Your task to perform on an android device: Clear the shopping cart on target.com. Search for dell alienware on target.com, select the first entry, add it to the cart, then select checkout. Image 0: 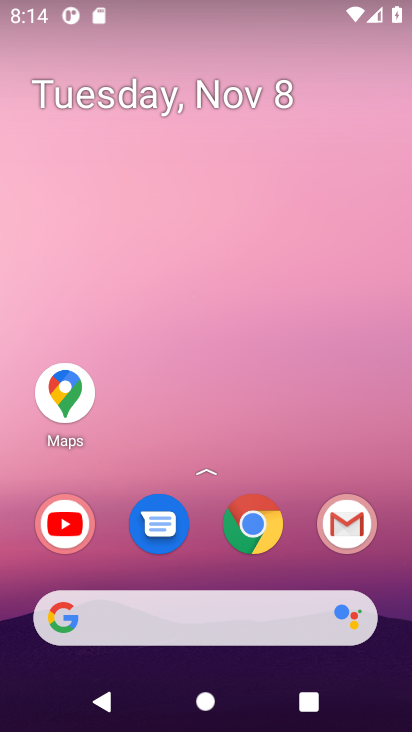
Step 0: click (245, 539)
Your task to perform on an android device: Clear the shopping cart on target.com. Search for dell alienware on target.com, select the first entry, add it to the cart, then select checkout. Image 1: 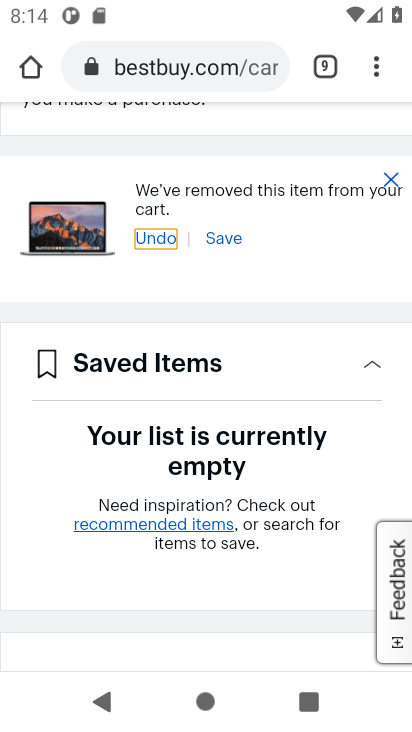
Step 1: click (230, 63)
Your task to perform on an android device: Clear the shopping cart on target.com. Search for dell alienware on target.com, select the first entry, add it to the cart, then select checkout. Image 2: 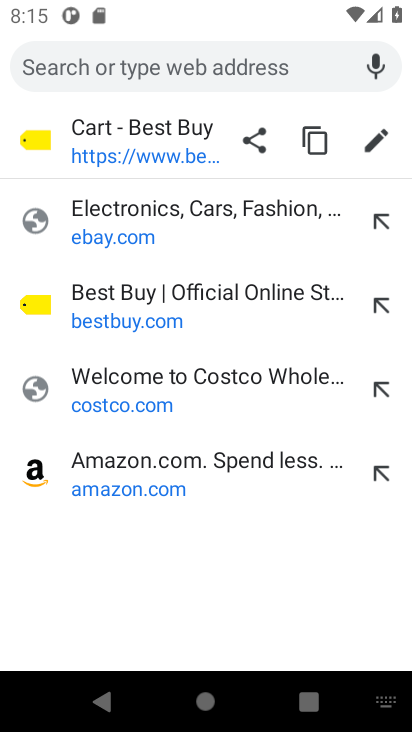
Step 2: type "target.com"
Your task to perform on an android device: Clear the shopping cart on target.com. Search for dell alienware on target.com, select the first entry, add it to the cart, then select checkout. Image 3: 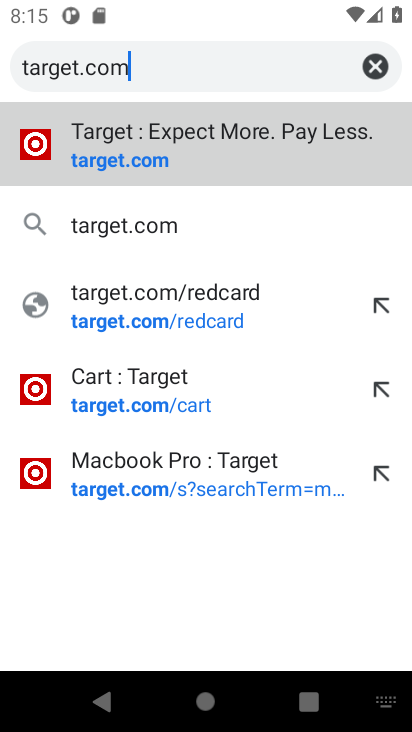
Step 3: click (137, 160)
Your task to perform on an android device: Clear the shopping cart on target.com. Search for dell alienware on target.com, select the first entry, add it to the cart, then select checkout. Image 4: 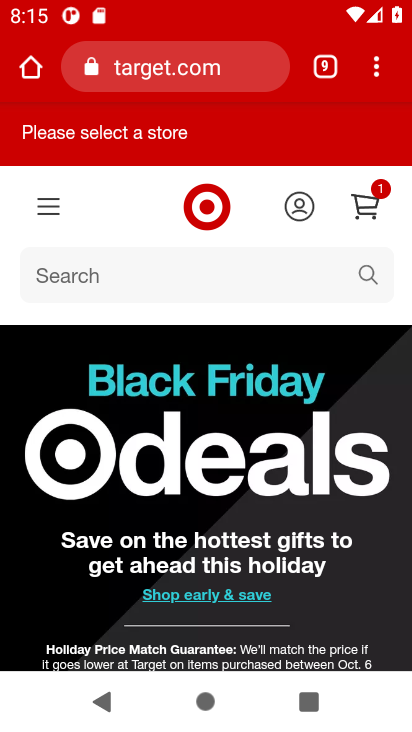
Step 4: click (365, 210)
Your task to perform on an android device: Clear the shopping cart on target.com. Search for dell alienware on target.com, select the first entry, add it to the cart, then select checkout. Image 5: 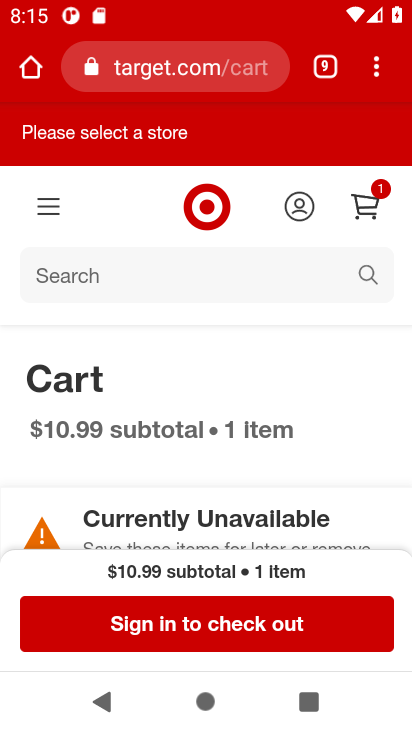
Step 5: drag from (183, 456) to (202, 164)
Your task to perform on an android device: Clear the shopping cart on target.com. Search for dell alienware on target.com, select the first entry, add it to the cart, then select checkout. Image 6: 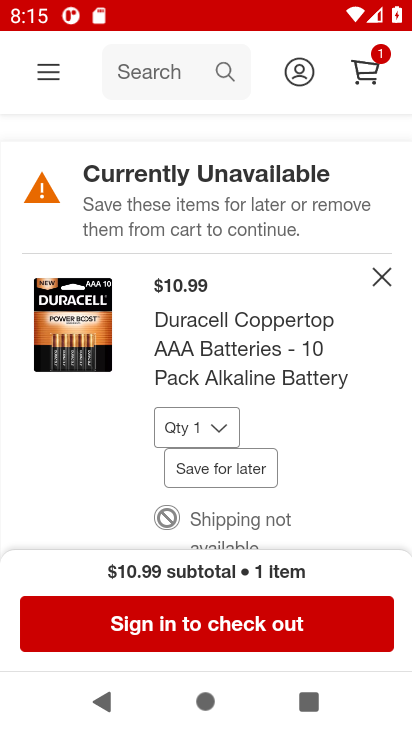
Step 6: drag from (186, 362) to (211, 198)
Your task to perform on an android device: Clear the shopping cart on target.com. Search for dell alienware on target.com, select the first entry, add it to the cart, then select checkout. Image 7: 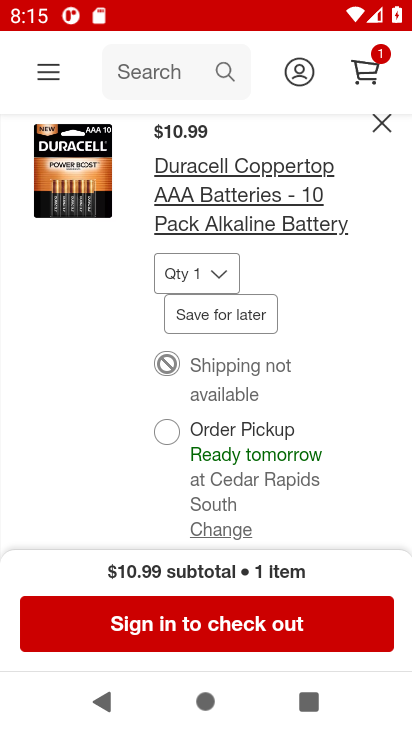
Step 7: drag from (197, 404) to (215, 211)
Your task to perform on an android device: Clear the shopping cart on target.com. Search for dell alienware on target.com, select the first entry, add it to the cart, then select checkout. Image 8: 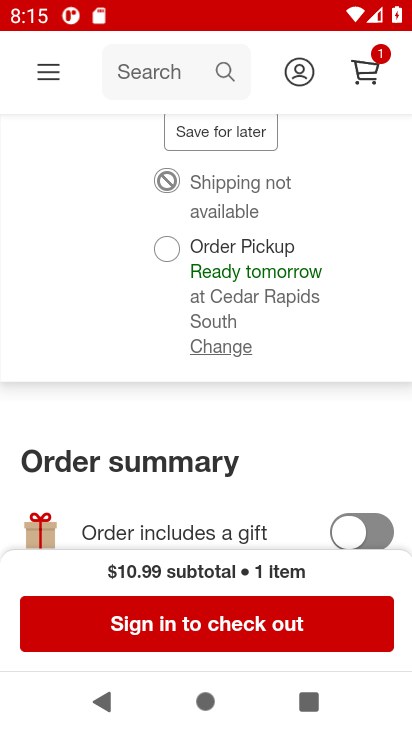
Step 8: drag from (245, 404) to (271, 182)
Your task to perform on an android device: Clear the shopping cart on target.com. Search for dell alienware on target.com, select the first entry, add it to the cart, then select checkout. Image 9: 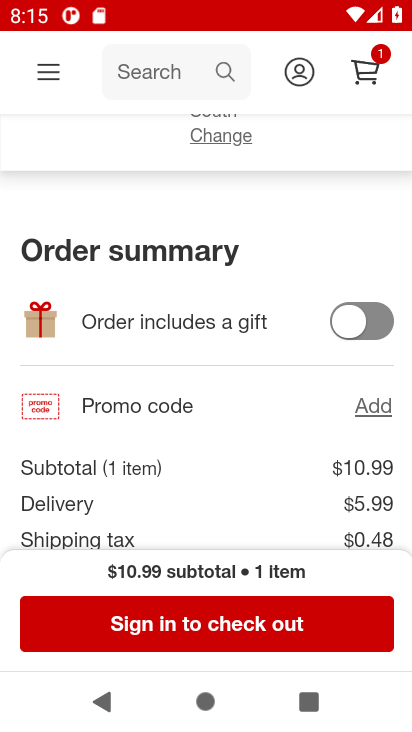
Step 9: drag from (221, 407) to (259, 134)
Your task to perform on an android device: Clear the shopping cart on target.com. Search for dell alienware on target.com, select the first entry, add it to the cart, then select checkout. Image 10: 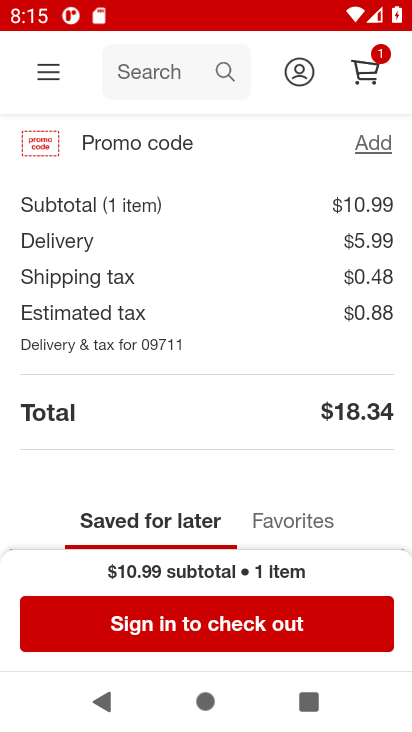
Step 10: drag from (205, 332) to (239, 127)
Your task to perform on an android device: Clear the shopping cart on target.com. Search for dell alienware on target.com, select the first entry, add it to the cart, then select checkout. Image 11: 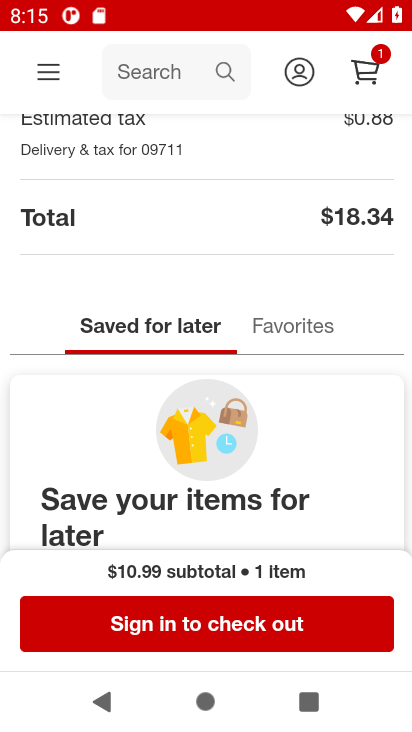
Step 11: drag from (240, 125) to (189, 659)
Your task to perform on an android device: Clear the shopping cart on target.com. Search for dell alienware on target.com, select the first entry, add it to the cart, then select checkout. Image 12: 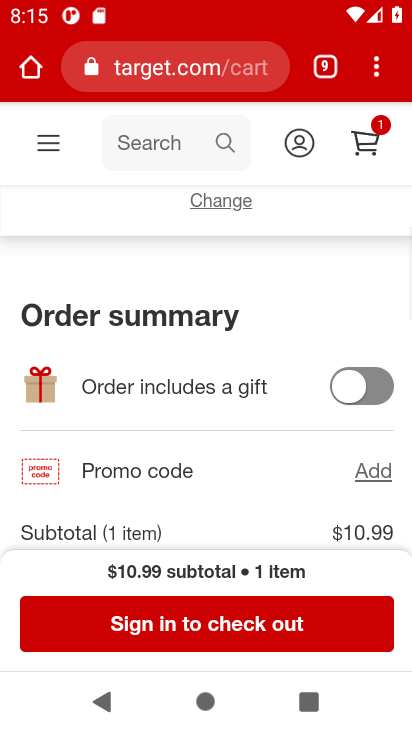
Step 12: drag from (178, 315) to (171, 646)
Your task to perform on an android device: Clear the shopping cart on target.com. Search for dell alienware on target.com, select the first entry, add it to the cart, then select checkout. Image 13: 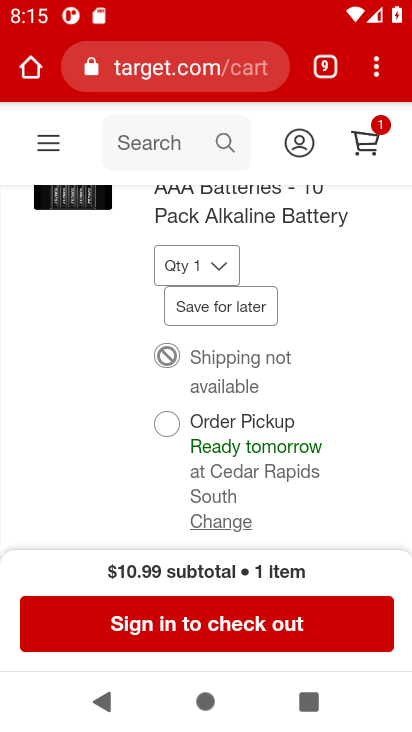
Step 13: drag from (163, 369) to (148, 566)
Your task to perform on an android device: Clear the shopping cart on target.com. Search for dell alienware on target.com, select the first entry, add it to the cart, then select checkout. Image 14: 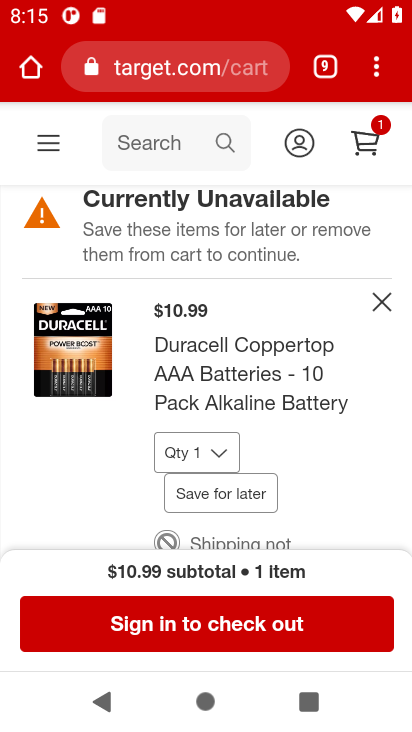
Step 14: click (376, 302)
Your task to perform on an android device: Clear the shopping cart on target.com. Search for dell alienware on target.com, select the first entry, add it to the cart, then select checkout. Image 15: 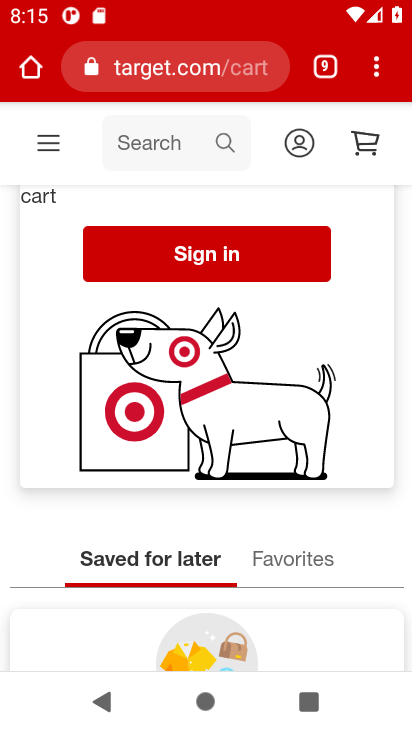
Step 15: click (224, 146)
Your task to perform on an android device: Clear the shopping cart on target.com. Search for dell alienware on target.com, select the first entry, add it to the cart, then select checkout. Image 16: 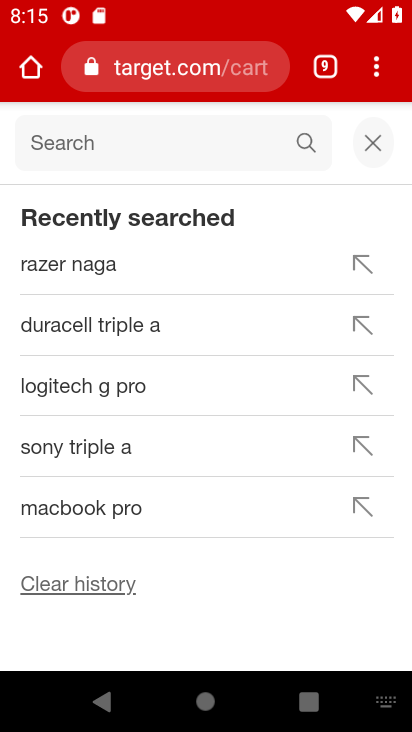
Step 16: type "dell alienware "
Your task to perform on an android device: Clear the shopping cart on target.com. Search for dell alienware on target.com, select the first entry, add it to the cart, then select checkout. Image 17: 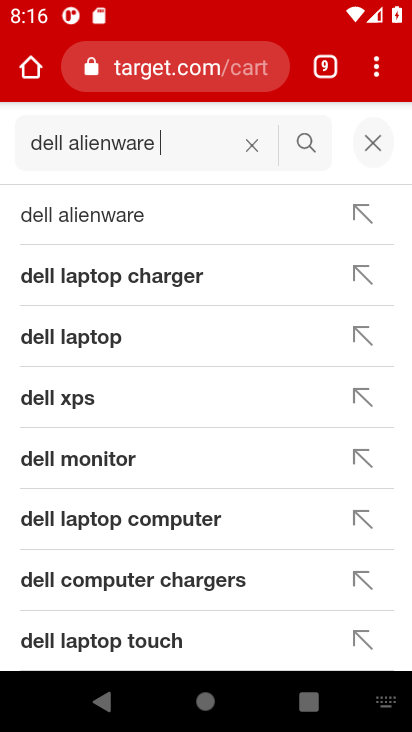
Step 17: click (111, 215)
Your task to perform on an android device: Clear the shopping cart on target.com. Search for dell alienware on target.com, select the first entry, add it to the cart, then select checkout. Image 18: 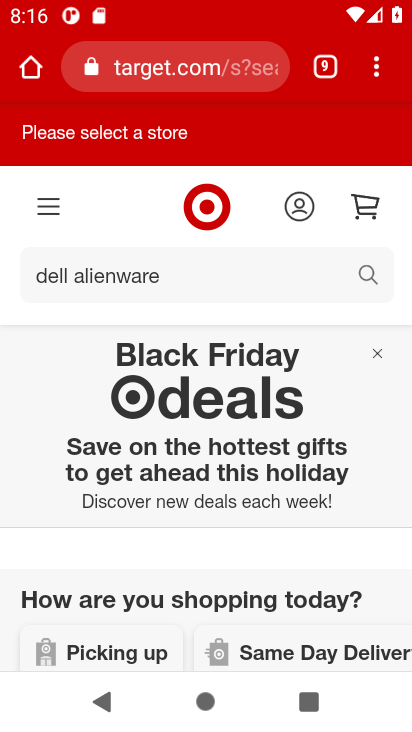
Step 18: task complete